Your task to perform on an android device: open a new tab in the chrome app Image 0: 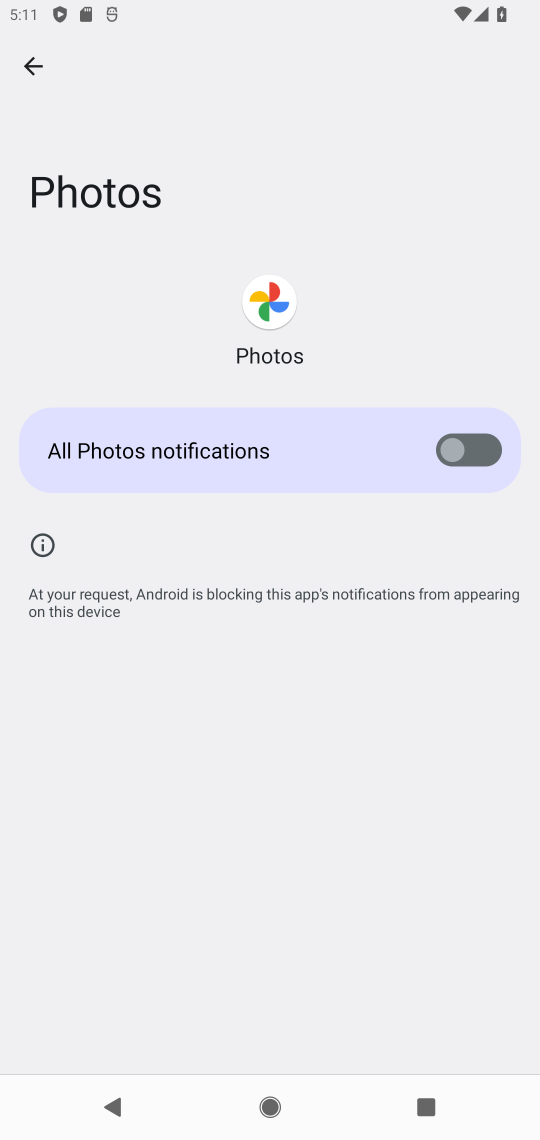
Step 0: press home button
Your task to perform on an android device: open a new tab in the chrome app Image 1: 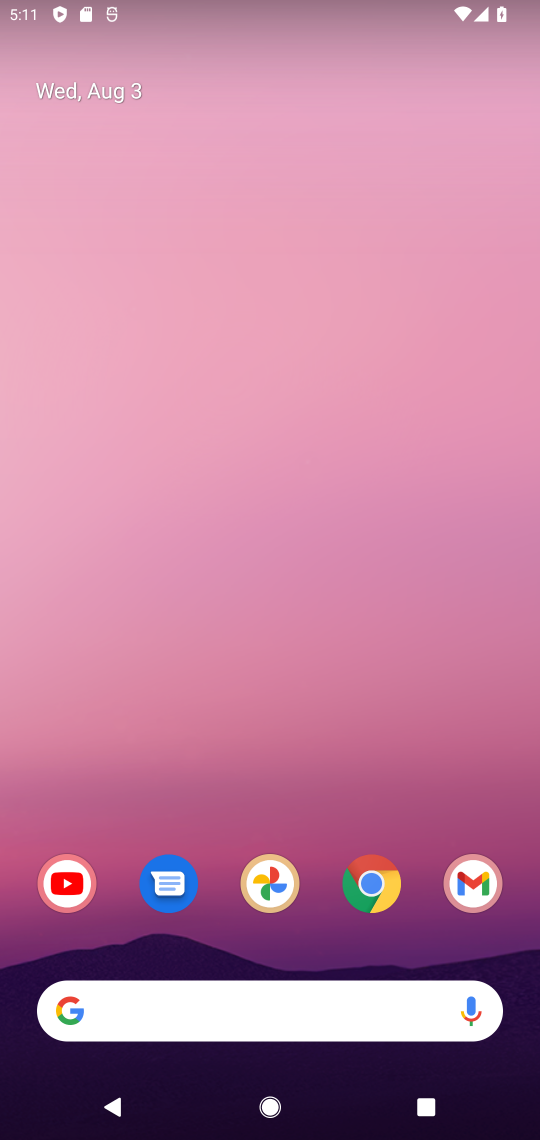
Step 1: click (375, 871)
Your task to perform on an android device: open a new tab in the chrome app Image 2: 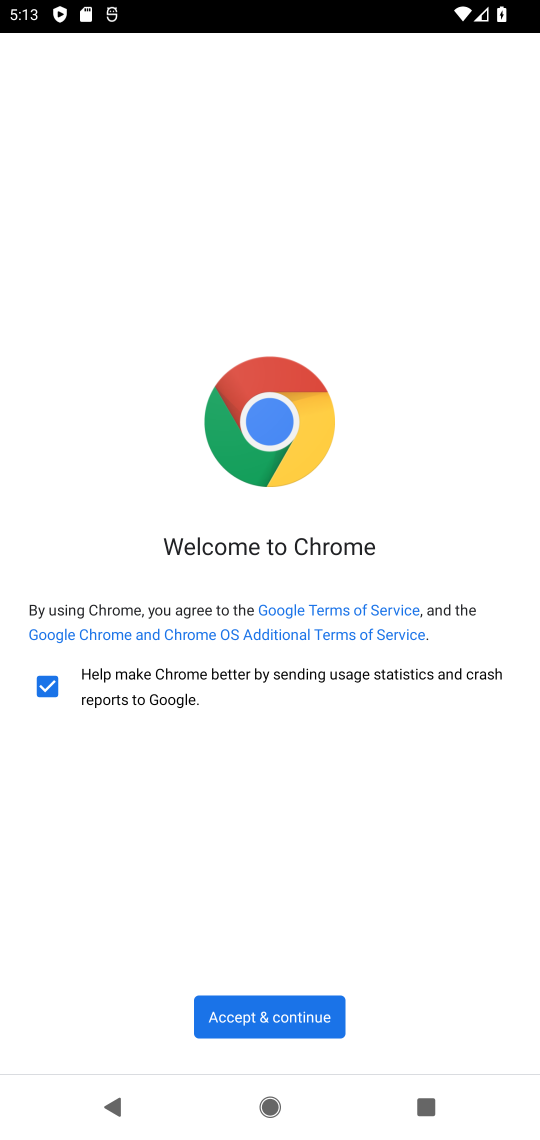
Step 2: click (246, 1021)
Your task to perform on an android device: open a new tab in the chrome app Image 3: 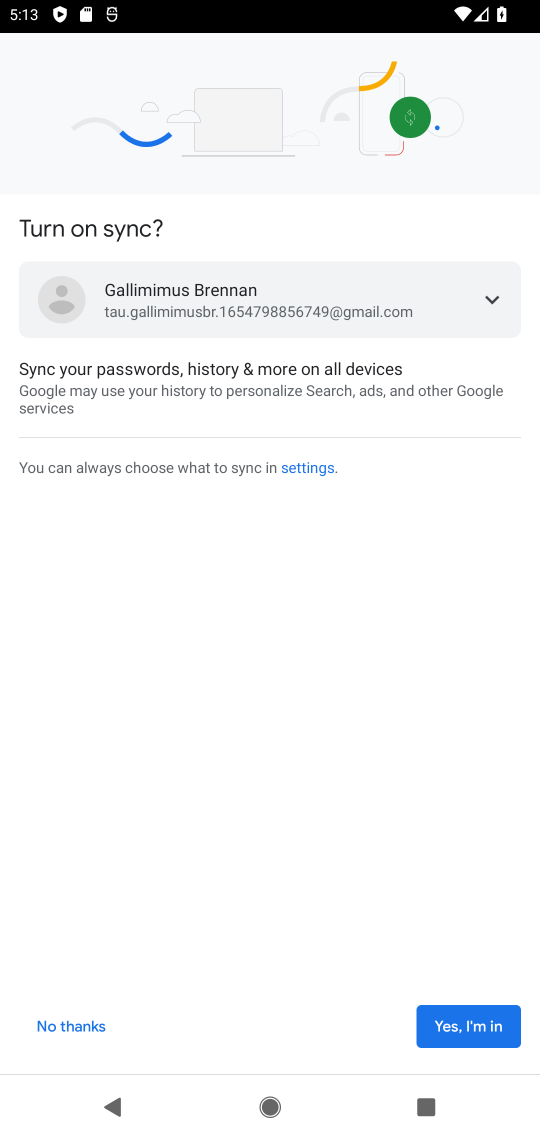
Step 3: click (456, 1031)
Your task to perform on an android device: open a new tab in the chrome app Image 4: 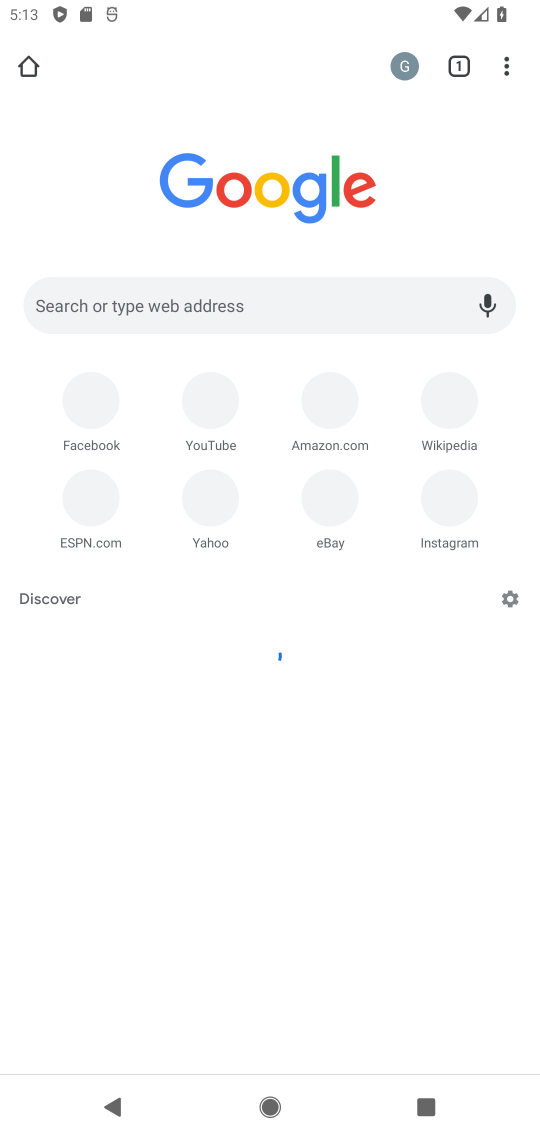
Step 4: click (498, 66)
Your task to perform on an android device: open a new tab in the chrome app Image 5: 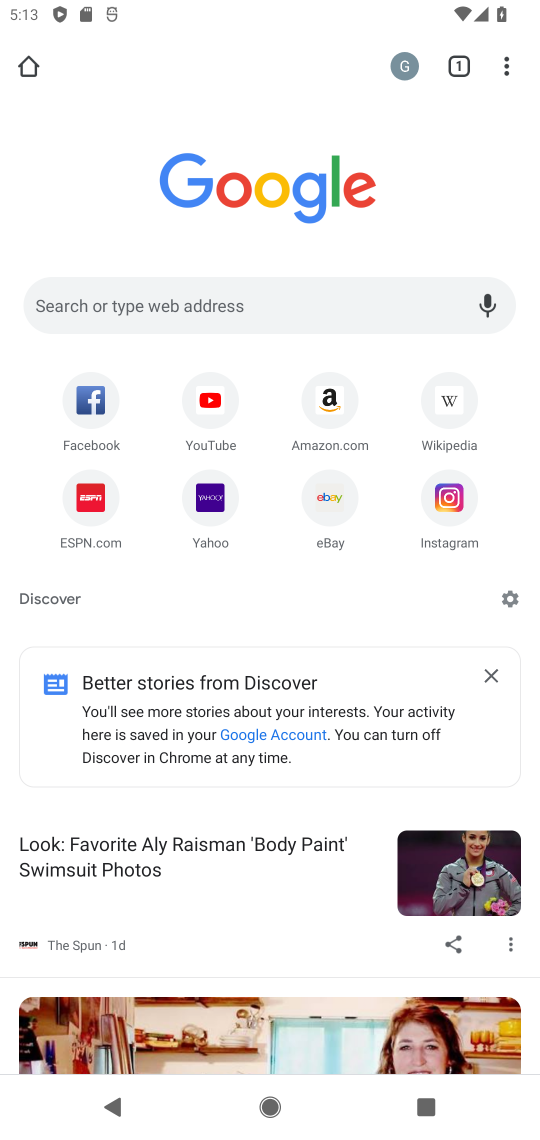
Step 5: click (498, 66)
Your task to perform on an android device: open a new tab in the chrome app Image 6: 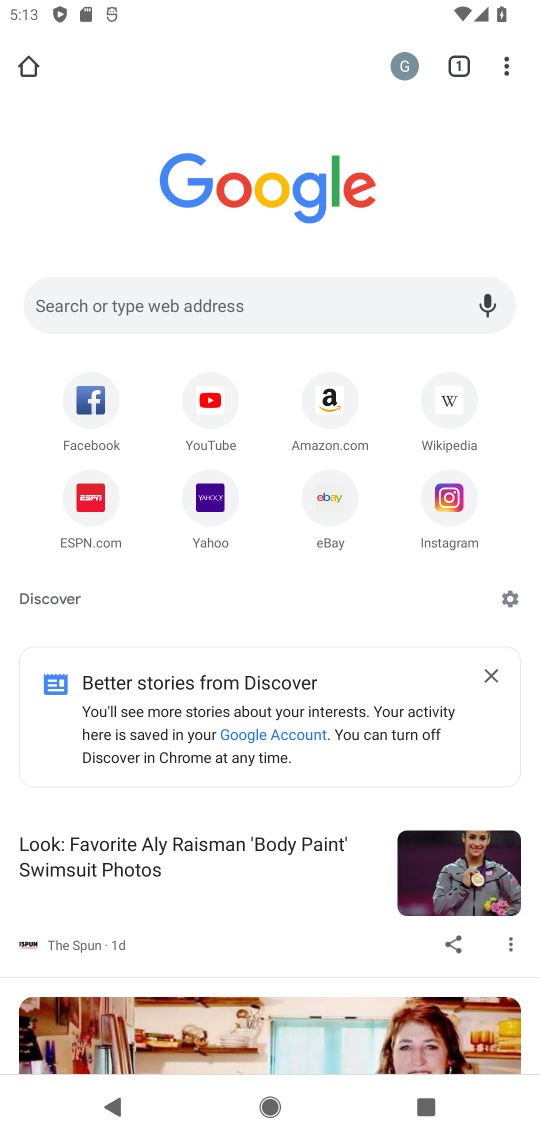
Step 6: click (501, 70)
Your task to perform on an android device: open a new tab in the chrome app Image 7: 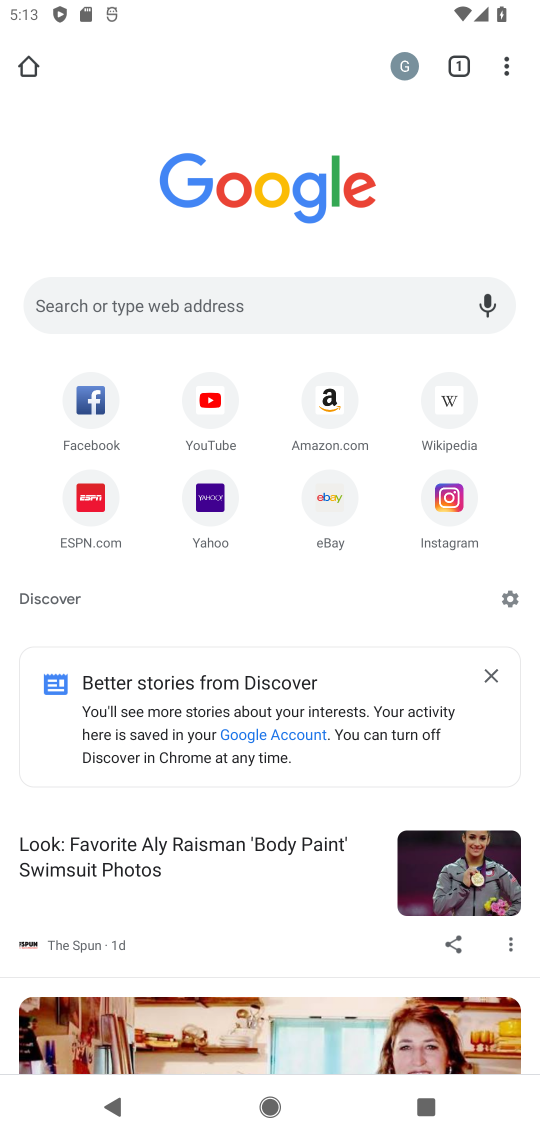
Step 7: click (506, 60)
Your task to perform on an android device: open a new tab in the chrome app Image 8: 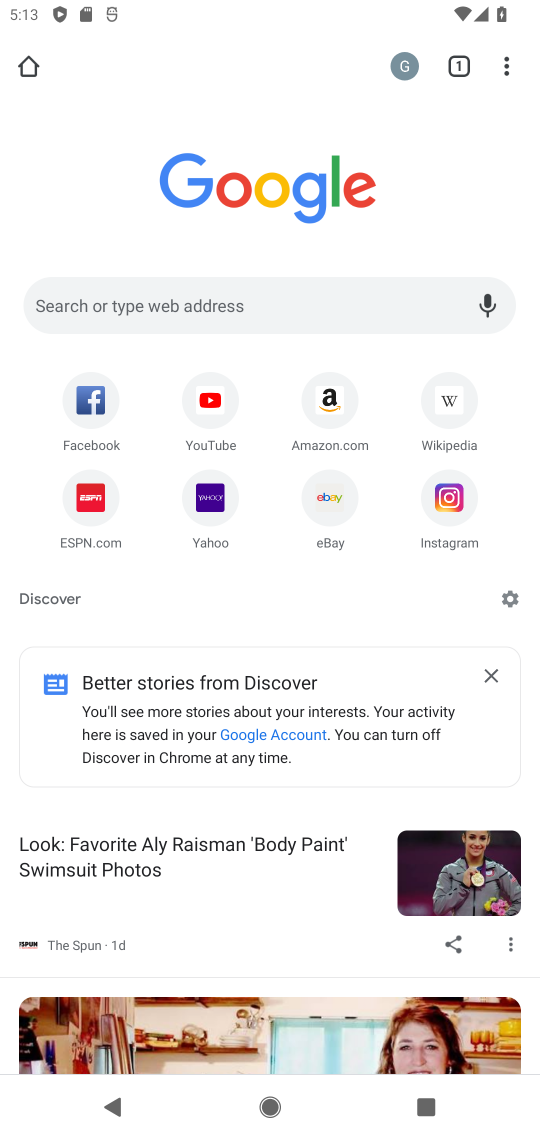
Step 8: click (515, 70)
Your task to perform on an android device: open a new tab in the chrome app Image 9: 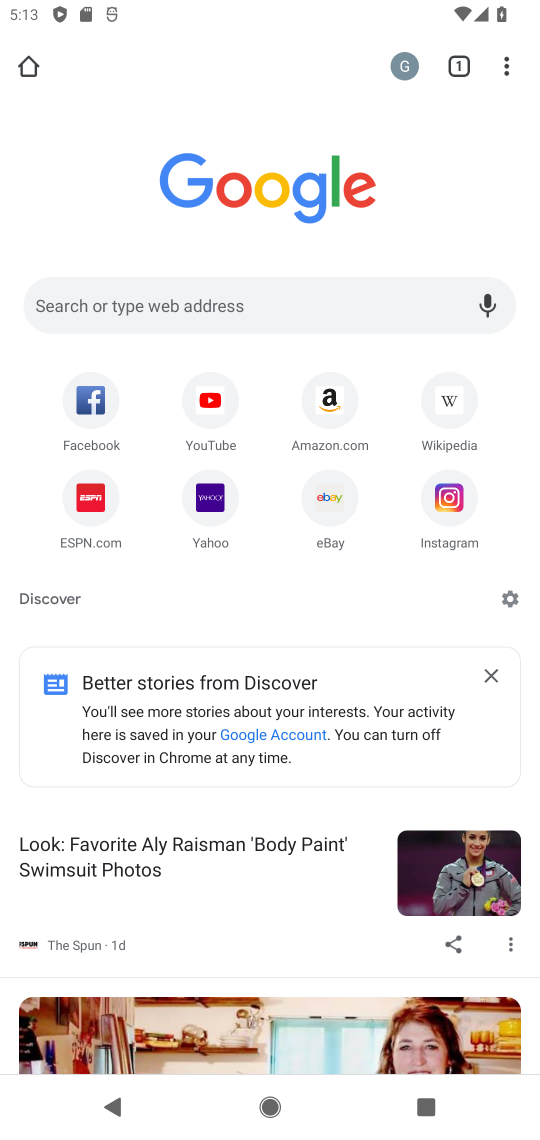
Step 9: click (511, 62)
Your task to perform on an android device: open a new tab in the chrome app Image 10: 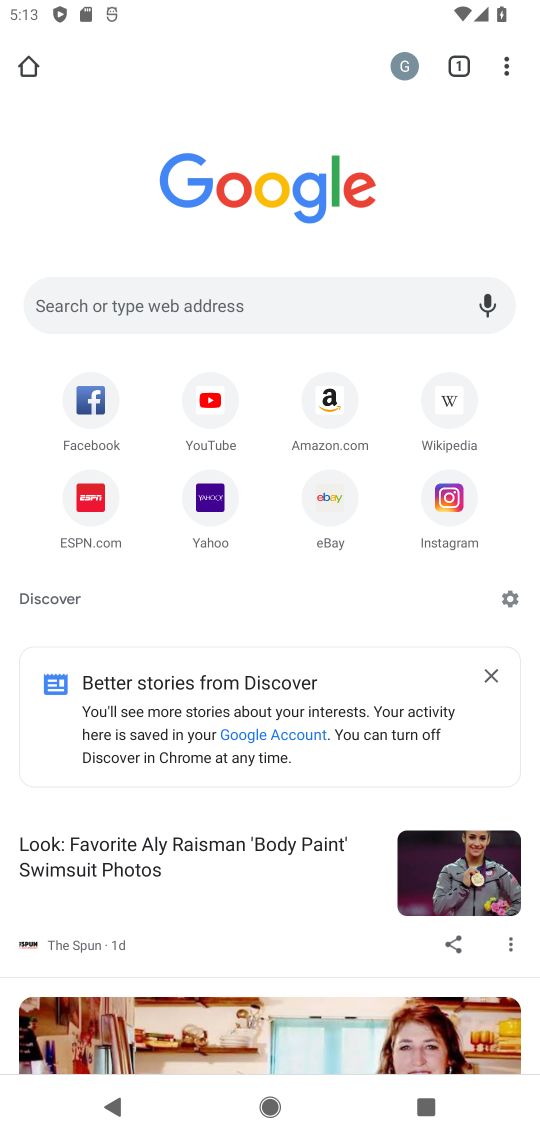
Step 10: click (501, 67)
Your task to perform on an android device: open a new tab in the chrome app Image 11: 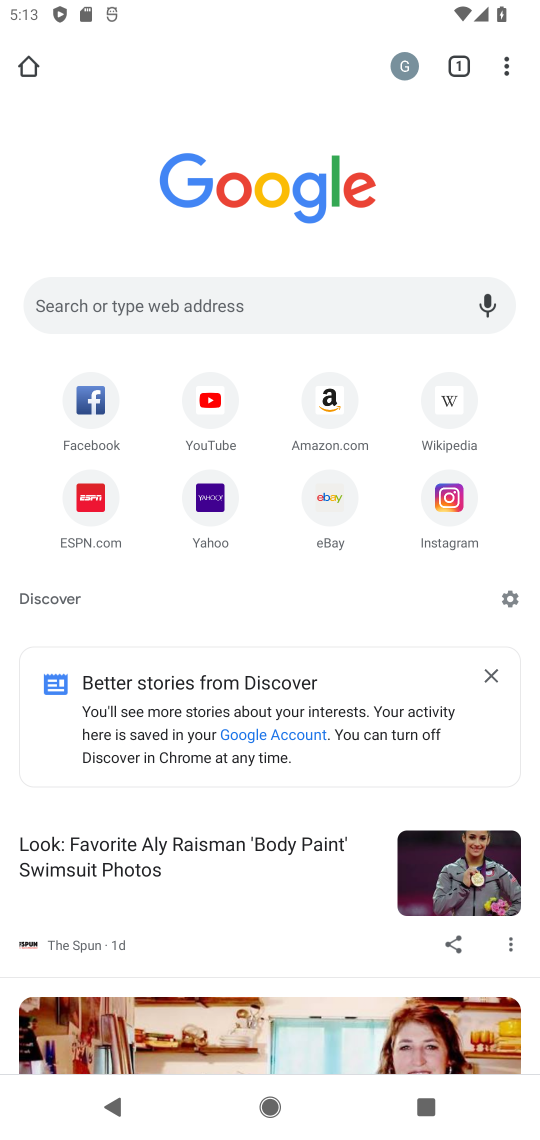
Step 11: click (504, 70)
Your task to perform on an android device: open a new tab in the chrome app Image 12: 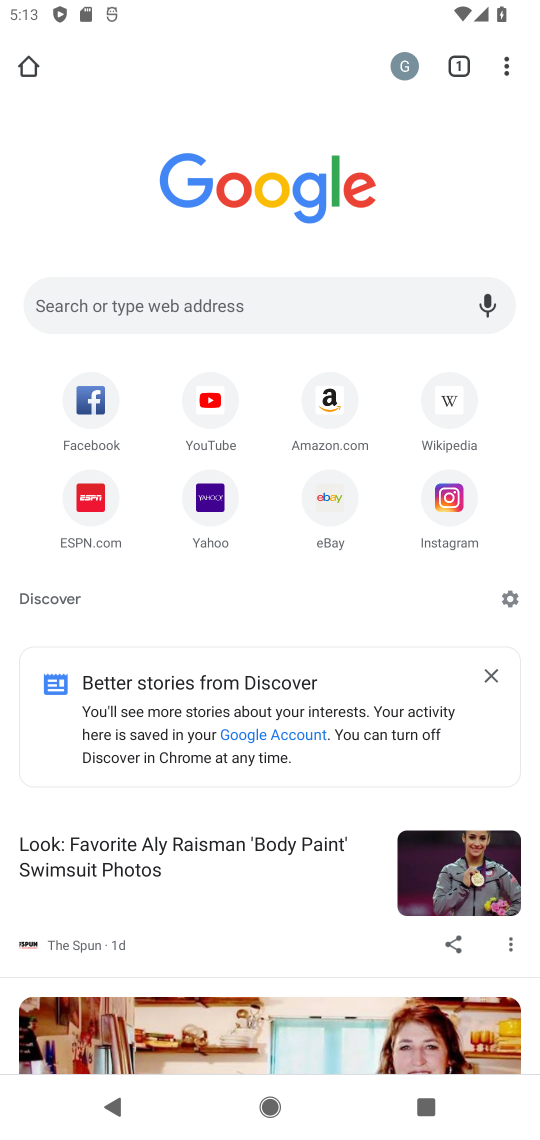
Step 12: click (509, 62)
Your task to perform on an android device: open a new tab in the chrome app Image 13: 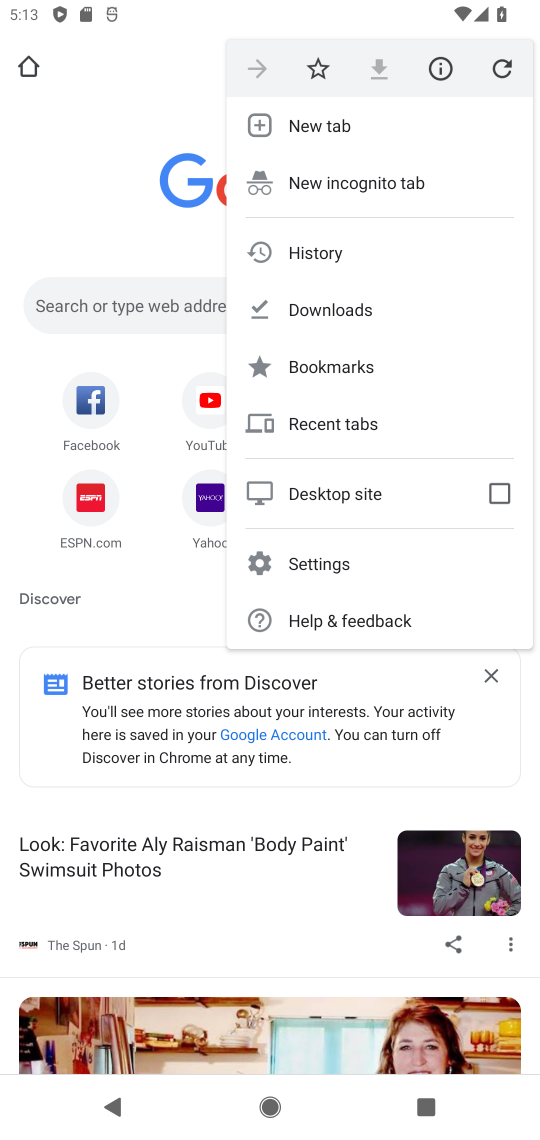
Step 13: click (340, 130)
Your task to perform on an android device: open a new tab in the chrome app Image 14: 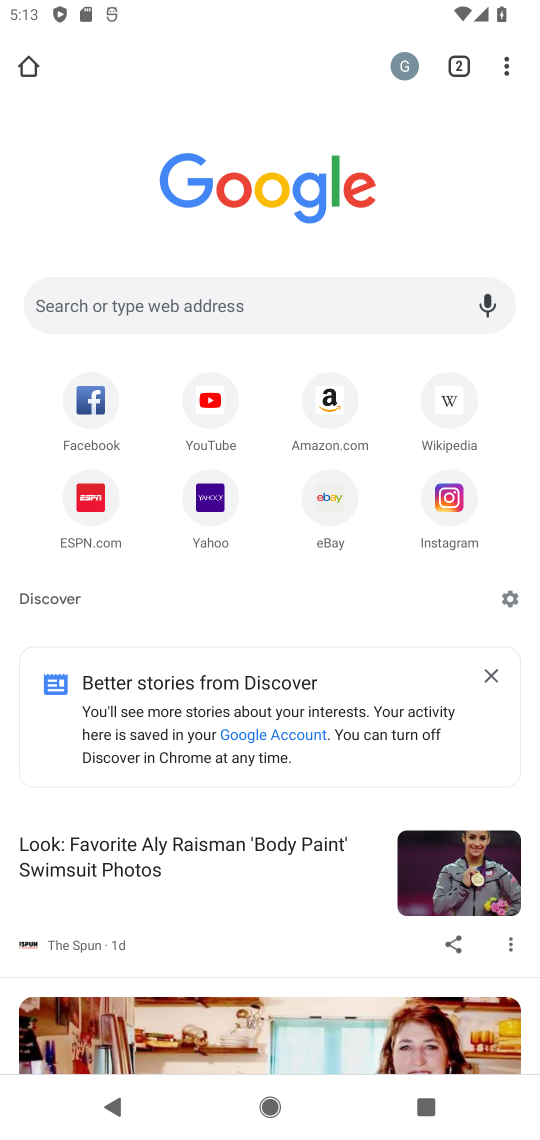
Step 14: task complete